Your task to perform on an android device: add a contact in the contacts app Image 0: 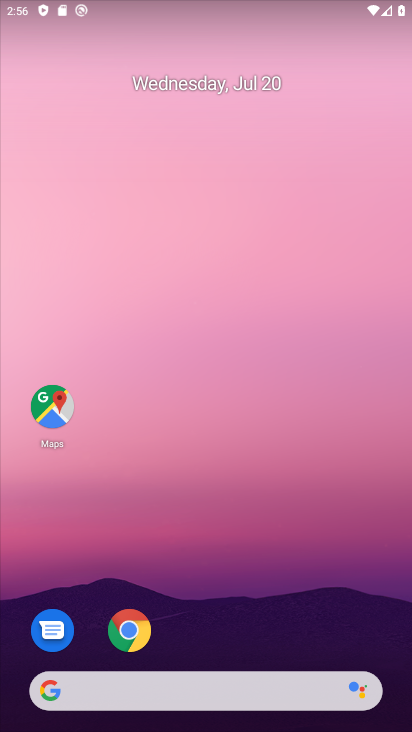
Step 0: drag from (172, 663) to (85, 144)
Your task to perform on an android device: add a contact in the contacts app Image 1: 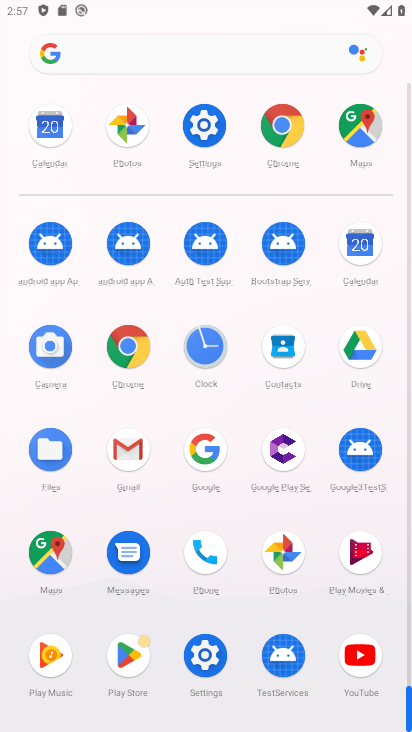
Step 1: click (294, 349)
Your task to perform on an android device: add a contact in the contacts app Image 2: 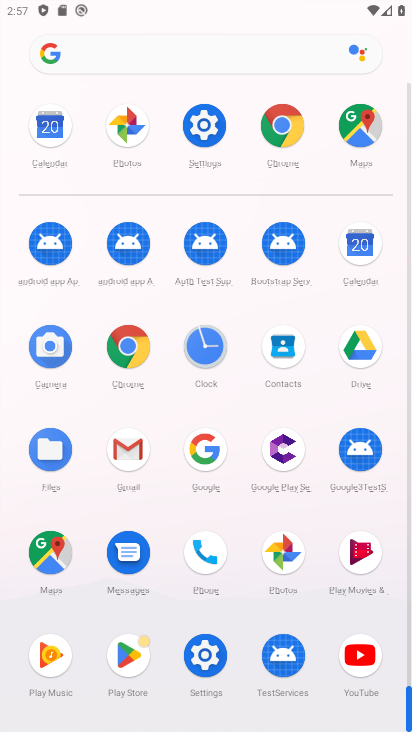
Step 2: click (292, 347)
Your task to perform on an android device: add a contact in the contacts app Image 3: 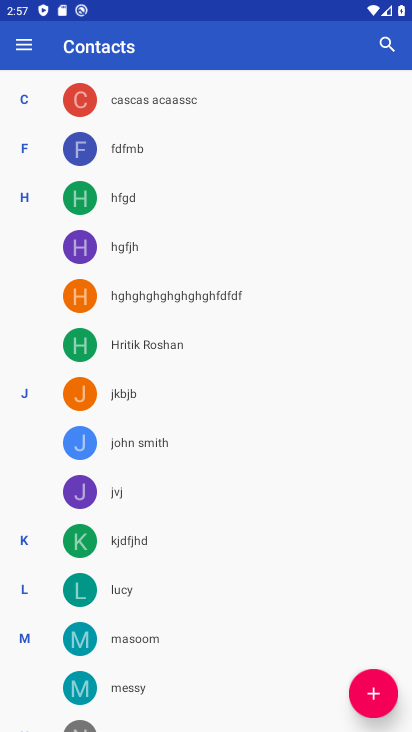
Step 3: click (370, 688)
Your task to perform on an android device: add a contact in the contacts app Image 4: 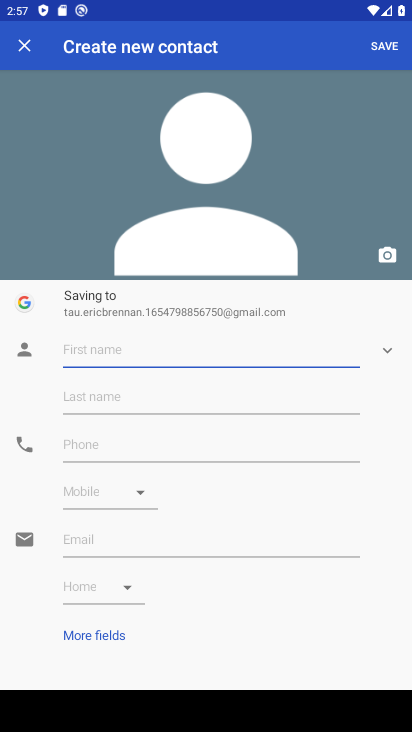
Step 4: type "bjvxmvmvlzxmv"
Your task to perform on an android device: add a contact in the contacts app Image 5: 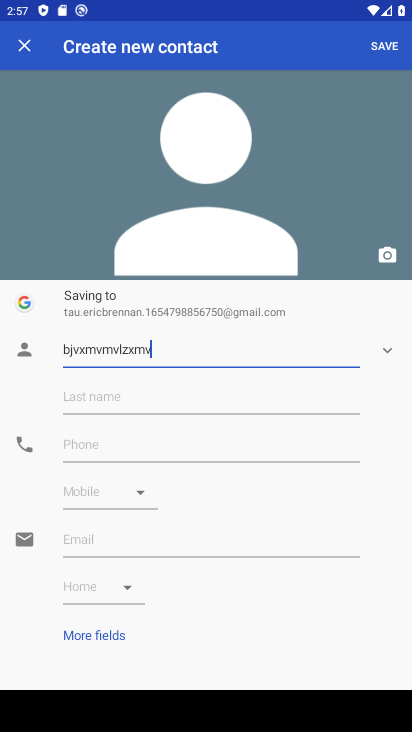
Step 5: click (88, 456)
Your task to perform on an android device: add a contact in the contacts app Image 6: 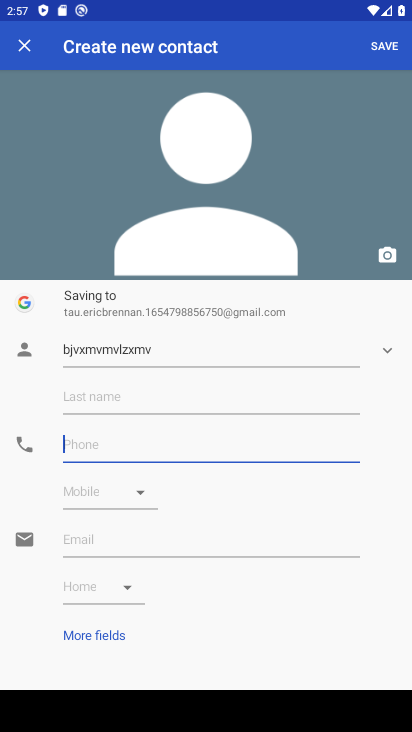
Step 6: click (88, 456)
Your task to perform on an android device: add a contact in the contacts app Image 7: 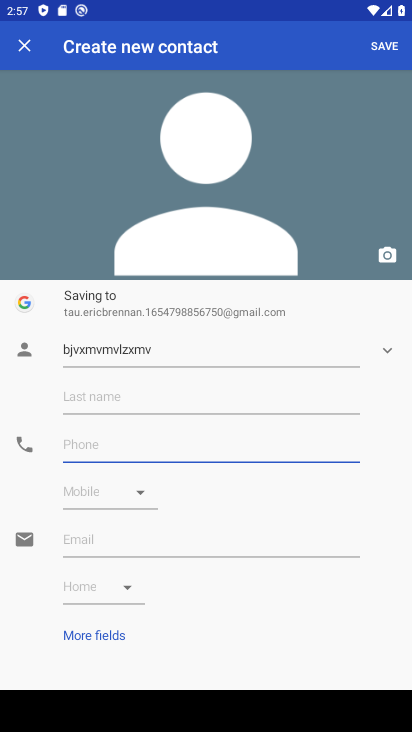
Step 7: click (88, 456)
Your task to perform on an android device: add a contact in the contacts app Image 8: 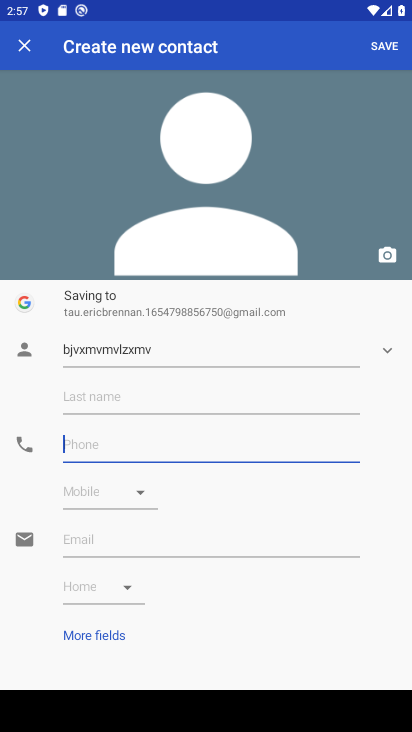
Step 8: type "674587584758945"
Your task to perform on an android device: add a contact in the contacts app Image 9: 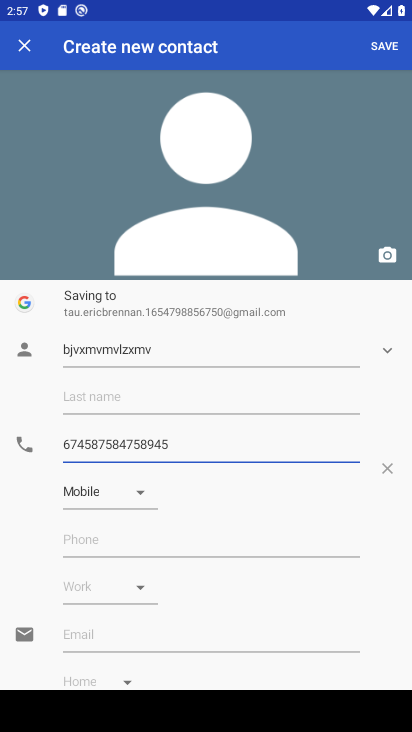
Step 9: click (384, 44)
Your task to perform on an android device: add a contact in the contacts app Image 10: 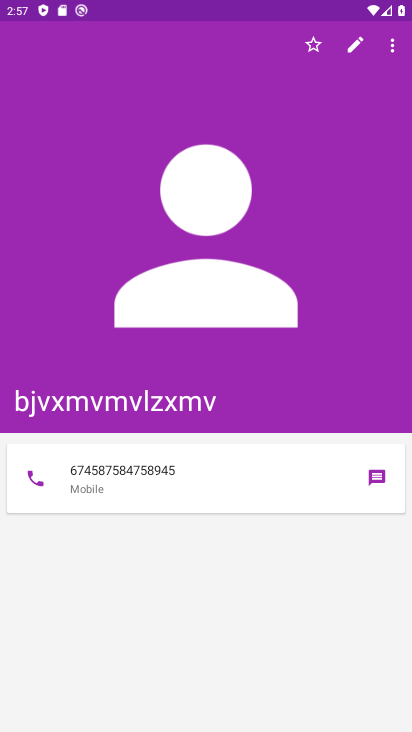
Step 10: task complete